Your task to perform on an android device: turn on data saver in the chrome app Image 0: 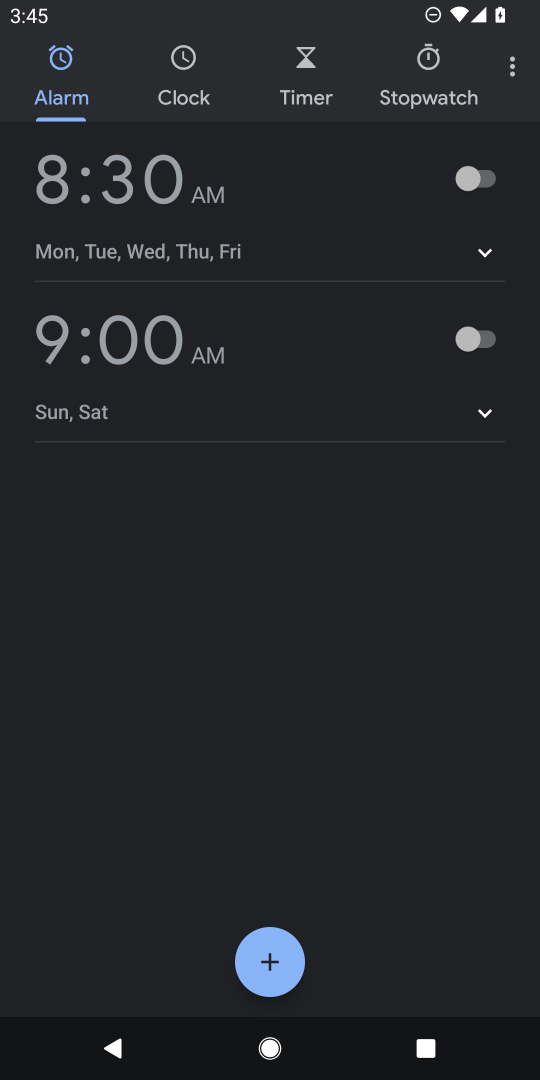
Step 0: press home button
Your task to perform on an android device: turn on data saver in the chrome app Image 1: 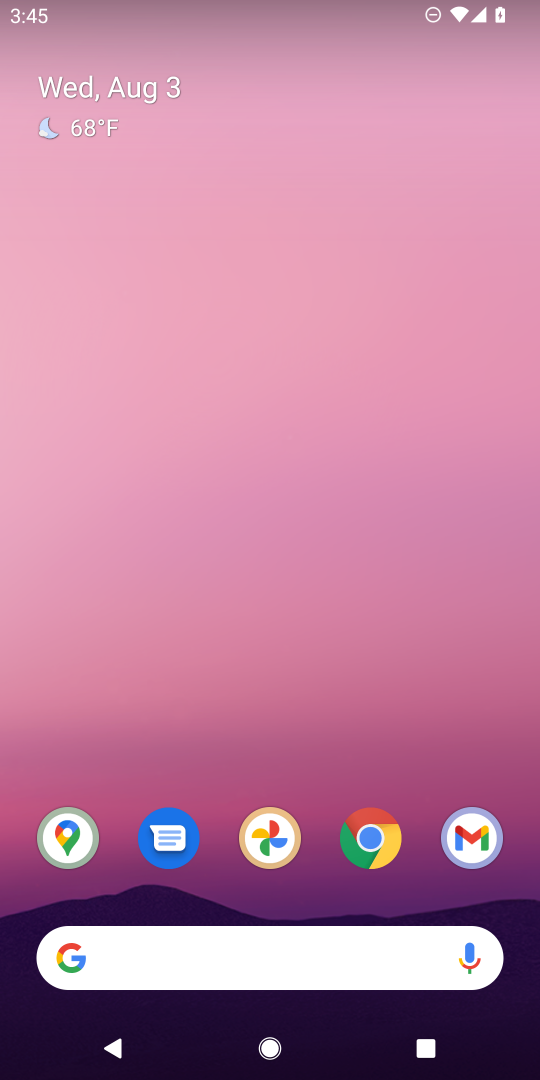
Step 1: click (362, 857)
Your task to perform on an android device: turn on data saver in the chrome app Image 2: 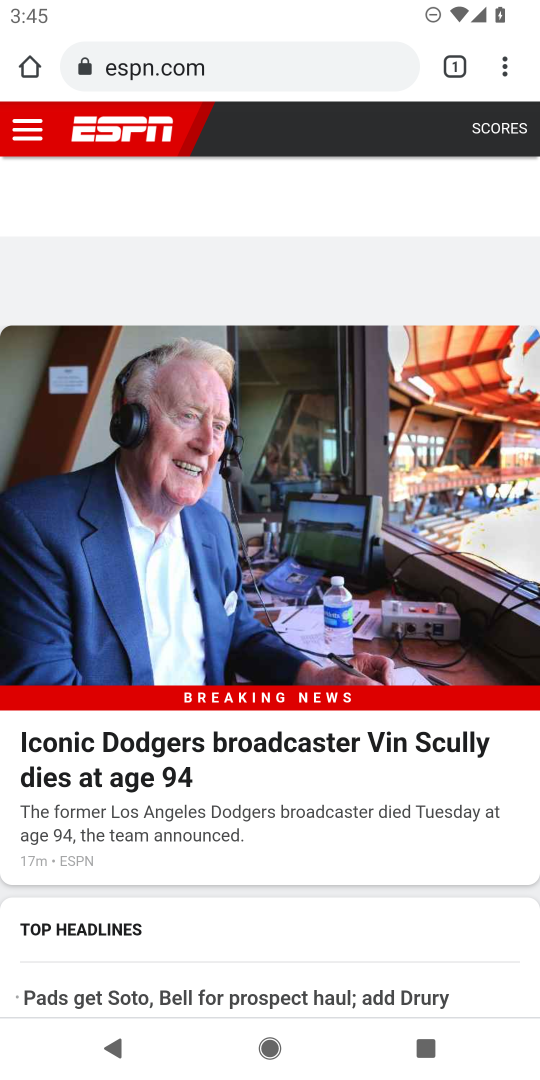
Step 2: click (505, 83)
Your task to perform on an android device: turn on data saver in the chrome app Image 3: 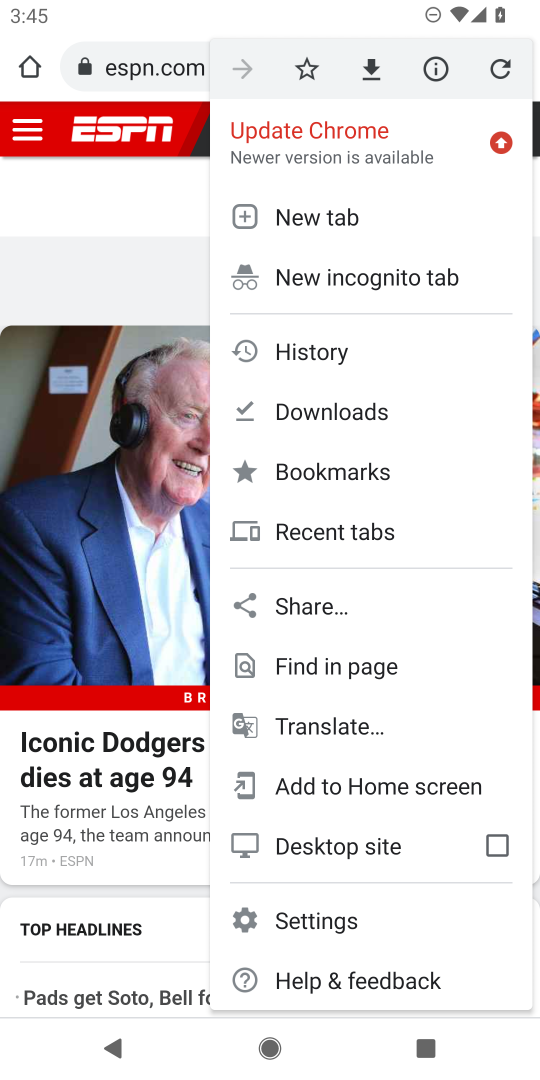
Step 3: click (317, 922)
Your task to perform on an android device: turn on data saver in the chrome app Image 4: 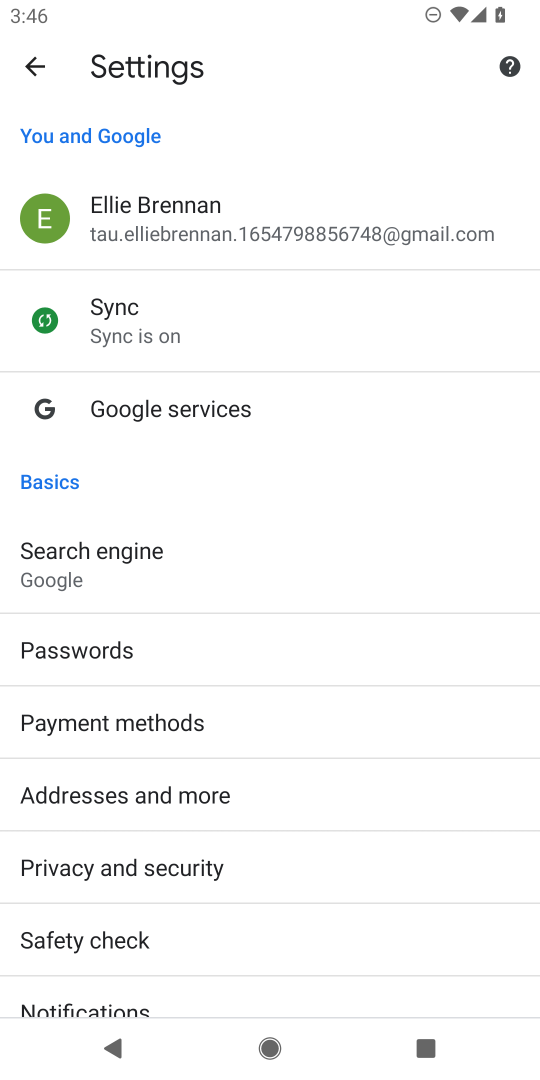
Step 4: drag from (236, 971) to (244, 613)
Your task to perform on an android device: turn on data saver in the chrome app Image 5: 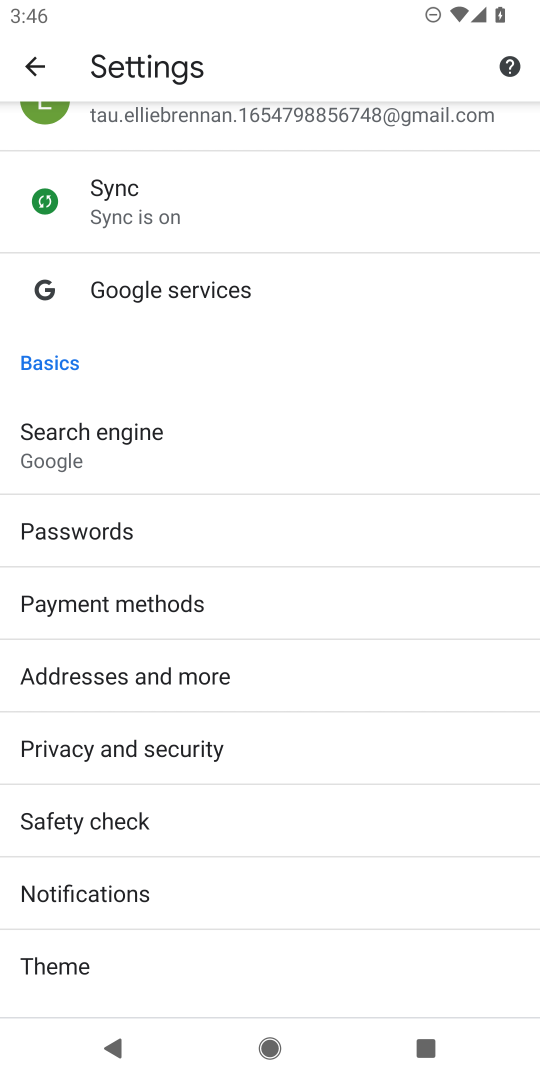
Step 5: drag from (190, 856) to (166, 321)
Your task to perform on an android device: turn on data saver in the chrome app Image 6: 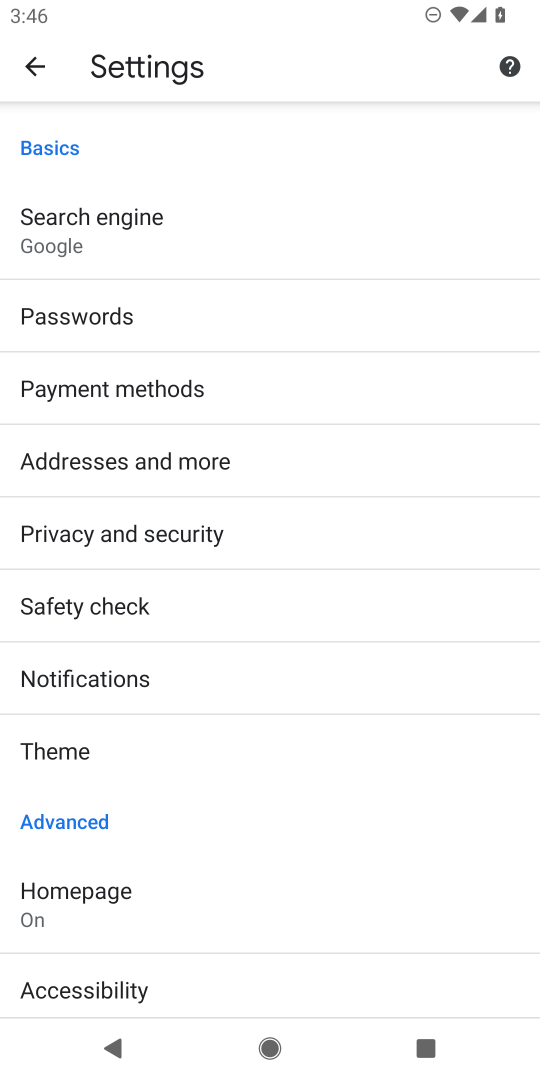
Step 6: drag from (134, 838) to (94, 459)
Your task to perform on an android device: turn on data saver in the chrome app Image 7: 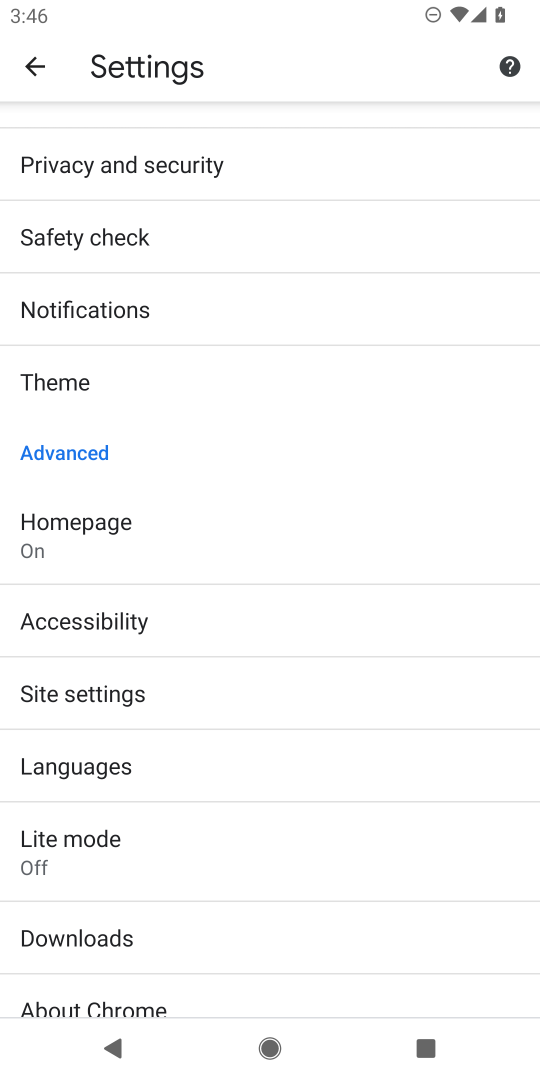
Step 7: click (105, 886)
Your task to perform on an android device: turn on data saver in the chrome app Image 8: 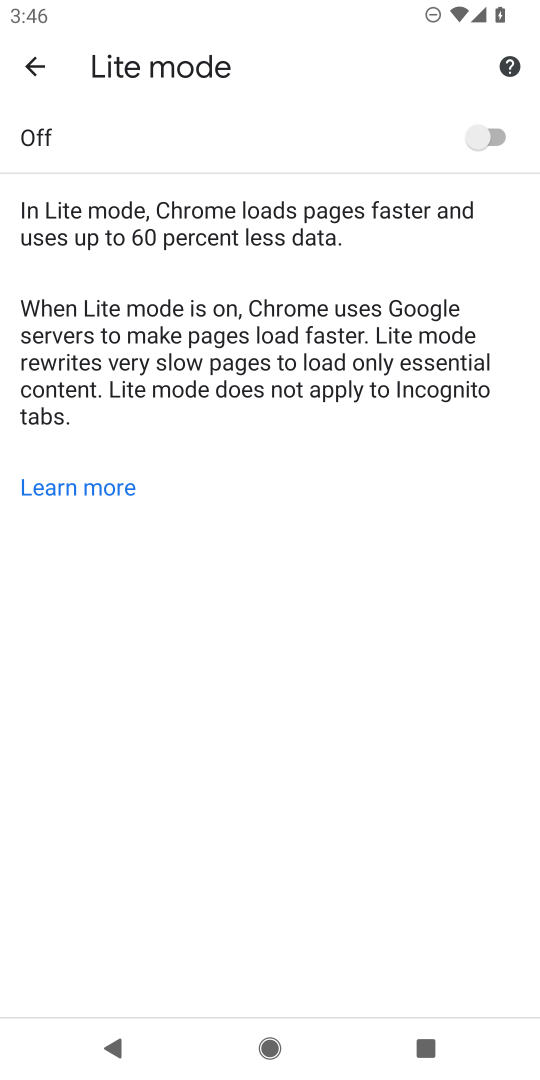
Step 8: click (500, 133)
Your task to perform on an android device: turn on data saver in the chrome app Image 9: 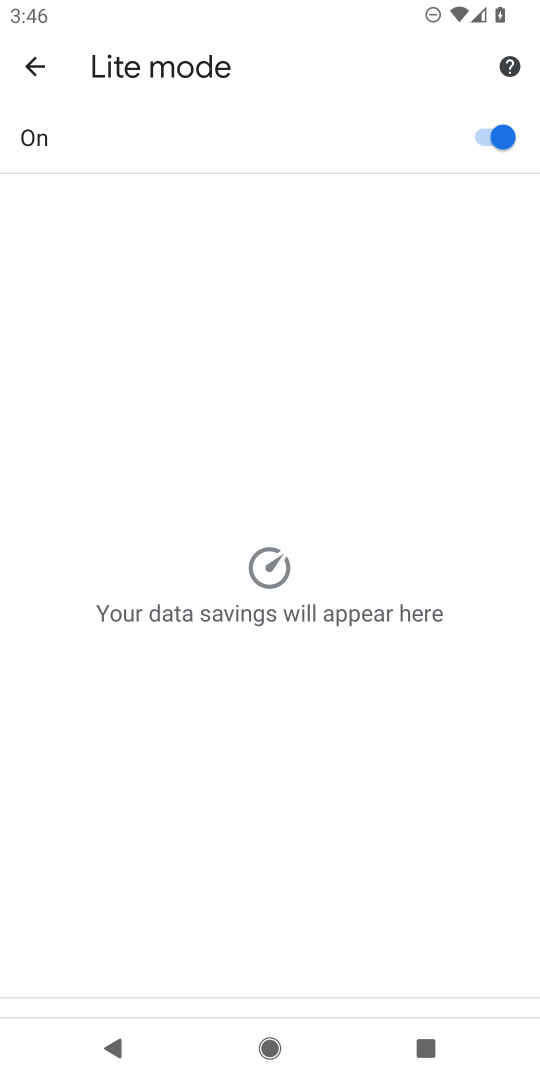
Step 9: task complete